Your task to perform on an android device: Show me productivity apps on the Play Store Image 0: 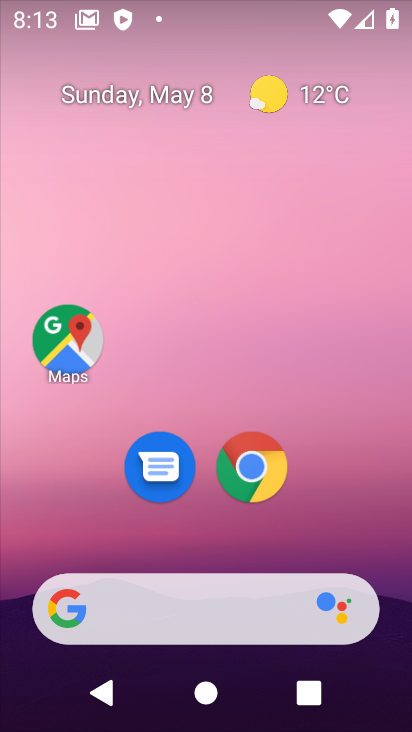
Step 0: drag from (220, 500) to (247, 60)
Your task to perform on an android device: Show me productivity apps on the Play Store Image 1: 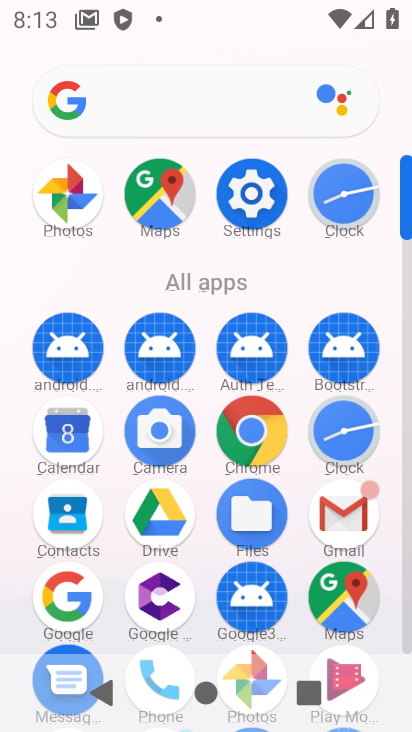
Step 1: drag from (189, 590) to (256, 179)
Your task to perform on an android device: Show me productivity apps on the Play Store Image 2: 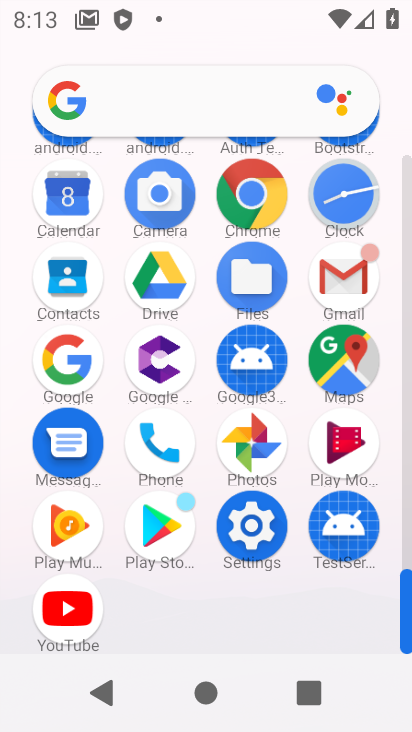
Step 2: click (156, 535)
Your task to perform on an android device: Show me productivity apps on the Play Store Image 3: 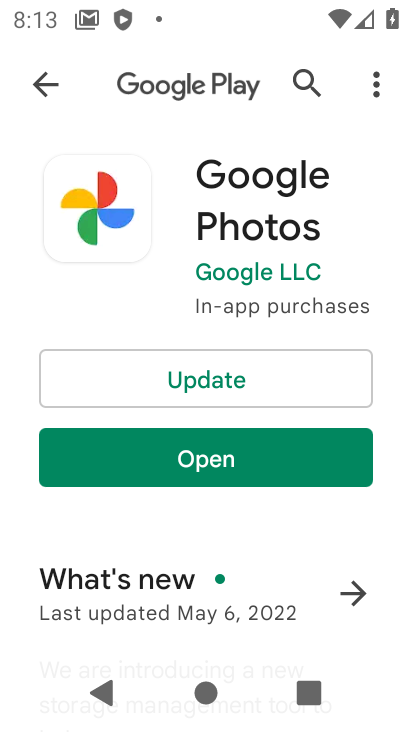
Step 3: click (33, 71)
Your task to perform on an android device: Show me productivity apps on the Play Store Image 4: 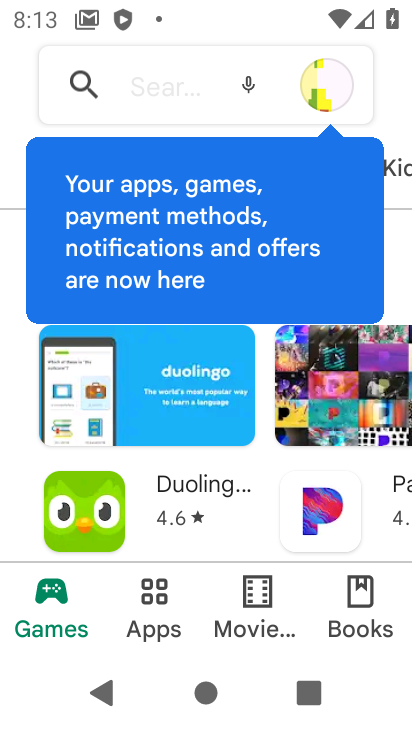
Step 4: click (158, 606)
Your task to perform on an android device: Show me productivity apps on the Play Store Image 5: 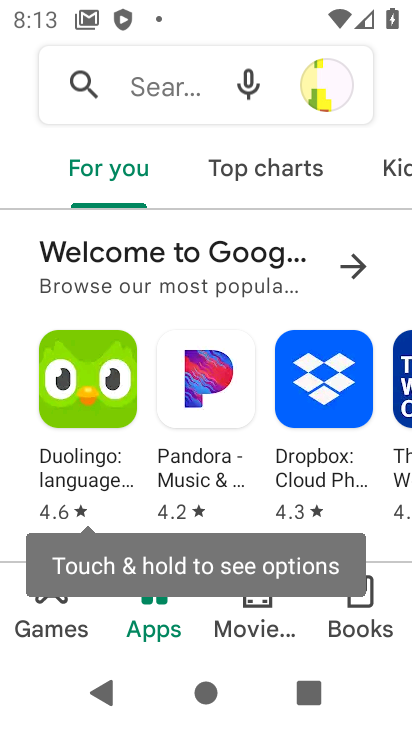
Step 5: drag from (203, 508) to (268, 186)
Your task to perform on an android device: Show me productivity apps on the Play Store Image 6: 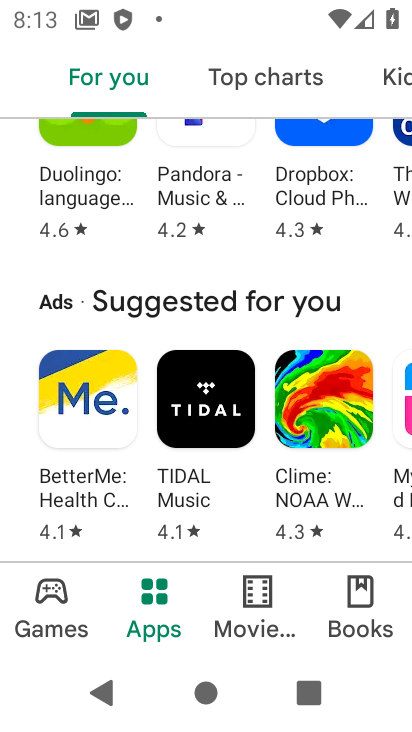
Step 6: drag from (189, 481) to (262, 229)
Your task to perform on an android device: Show me productivity apps on the Play Store Image 7: 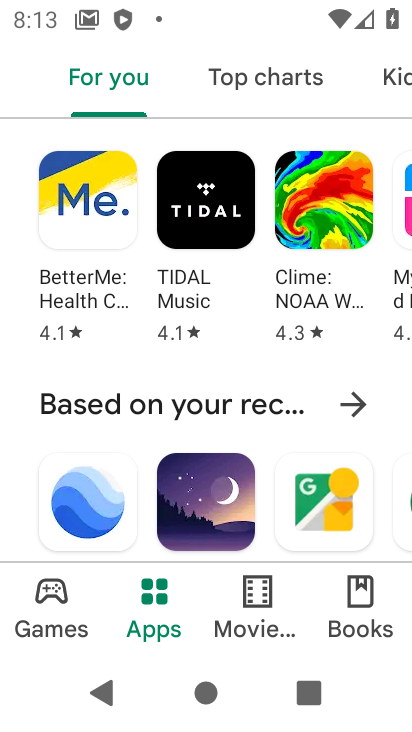
Step 7: drag from (227, 457) to (284, 202)
Your task to perform on an android device: Show me productivity apps on the Play Store Image 8: 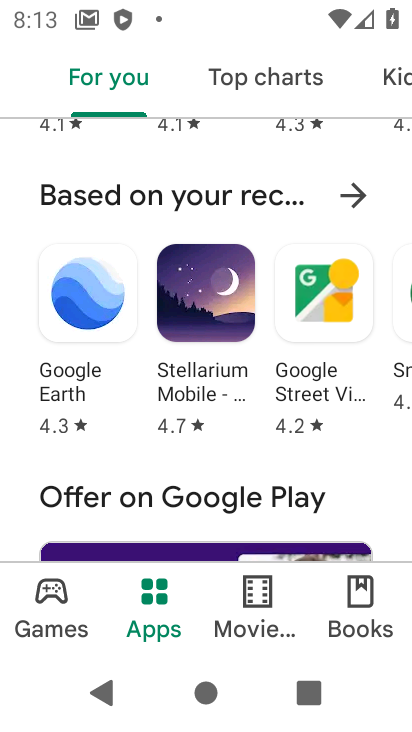
Step 8: drag from (191, 492) to (261, 173)
Your task to perform on an android device: Show me productivity apps on the Play Store Image 9: 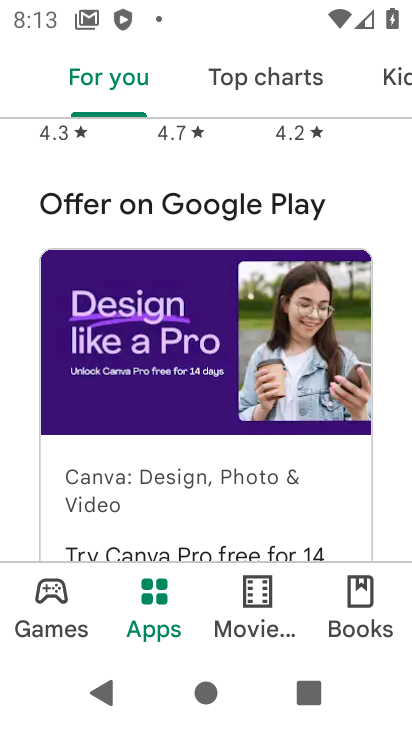
Step 9: drag from (116, 526) to (259, 146)
Your task to perform on an android device: Show me productivity apps on the Play Store Image 10: 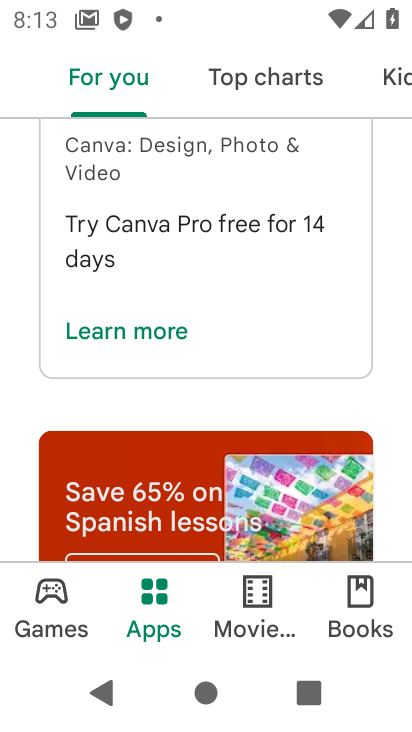
Step 10: drag from (185, 473) to (315, 75)
Your task to perform on an android device: Show me productivity apps on the Play Store Image 11: 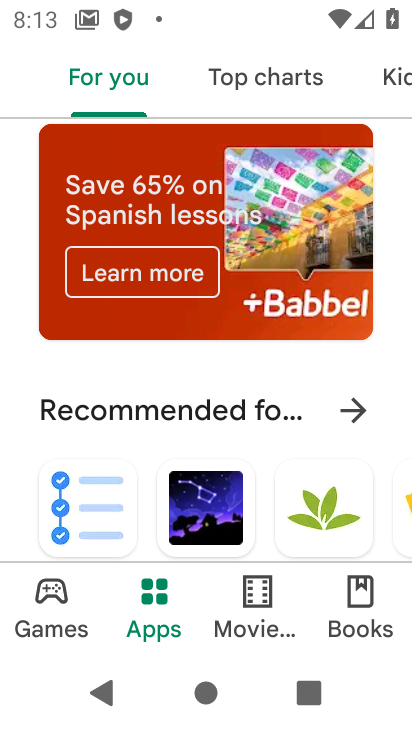
Step 11: drag from (164, 463) to (298, 86)
Your task to perform on an android device: Show me productivity apps on the Play Store Image 12: 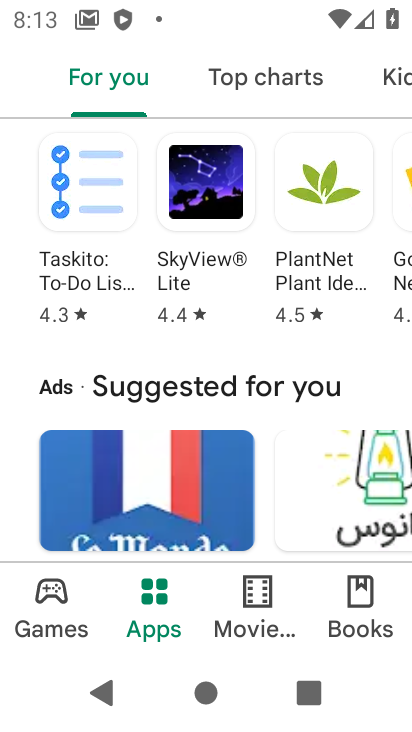
Step 12: drag from (204, 459) to (330, 85)
Your task to perform on an android device: Show me productivity apps on the Play Store Image 13: 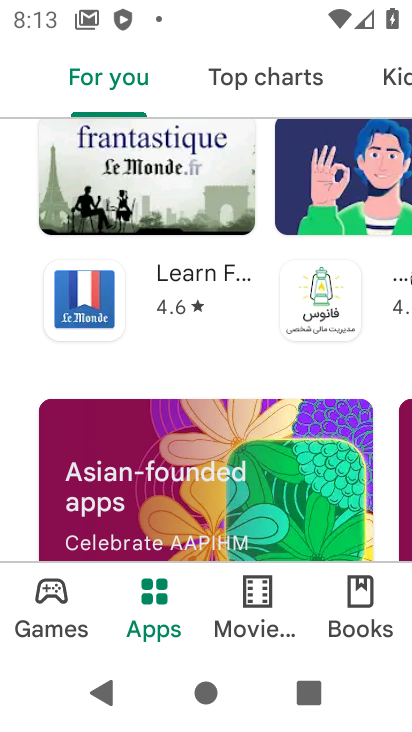
Step 13: drag from (193, 513) to (301, 154)
Your task to perform on an android device: Show me productivity apps on the Play Store Image 14: 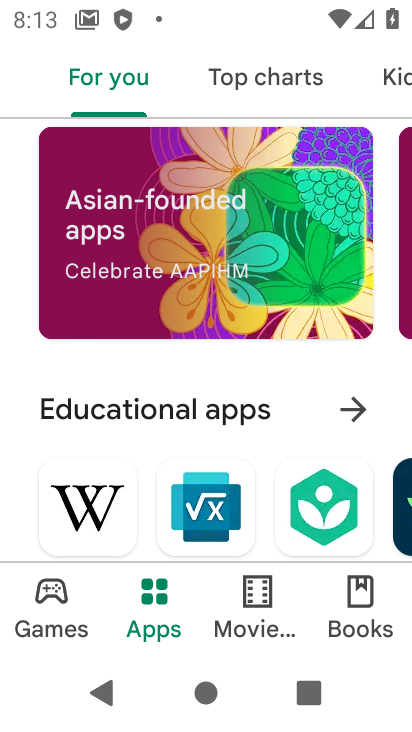
Step 14: drag from (196, 481) to (304, 123)
Your task to perform on an android device: Show me productivity apps on the Play Store Image 15: 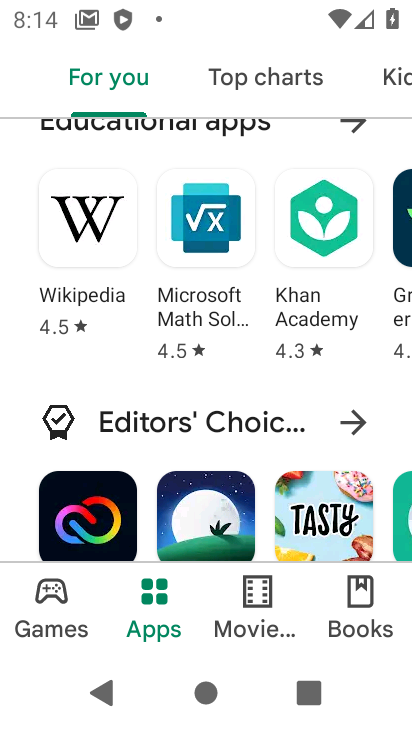
Step 15: drag from (175, 520) to (303, 111)
Your task to perform on an android device: Show me productivity apps on the Play Store Image 16: 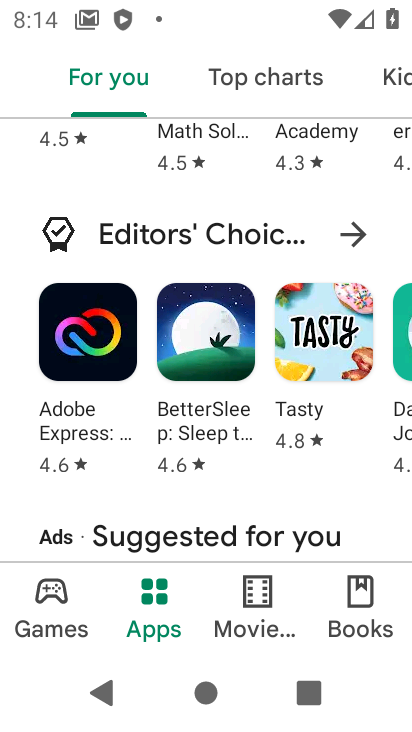
Step 16: drag from (185, 528) to (321, 86)
Your task to perform on an android device: Show me productivity apps on the Play Store Image 17: 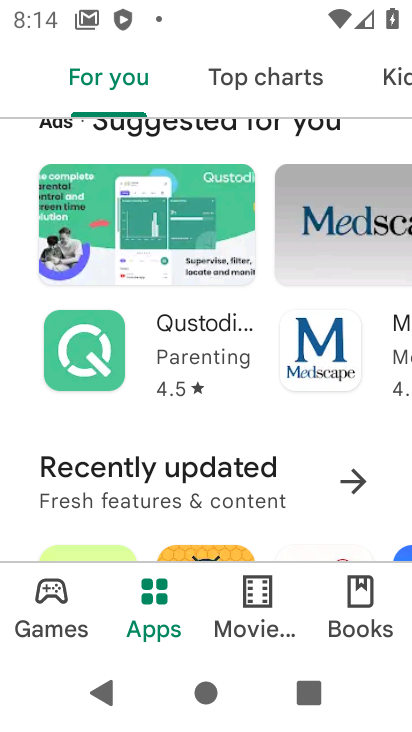
Step 17: drag from (196, 452) to (316, 55)
Your task to perform on an android device: Show me productivity apps on the Play Store Image 18: 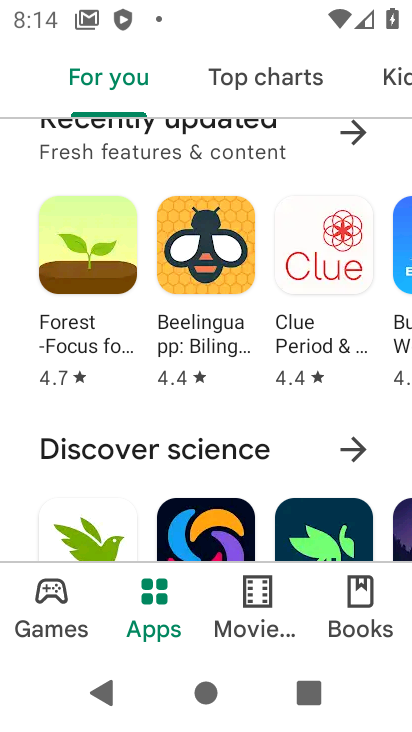
Step 18: drag from (178, 485) to (270, 152)
Your task to perform on an android device: Show me productivity apps on the Play Store Image 19: 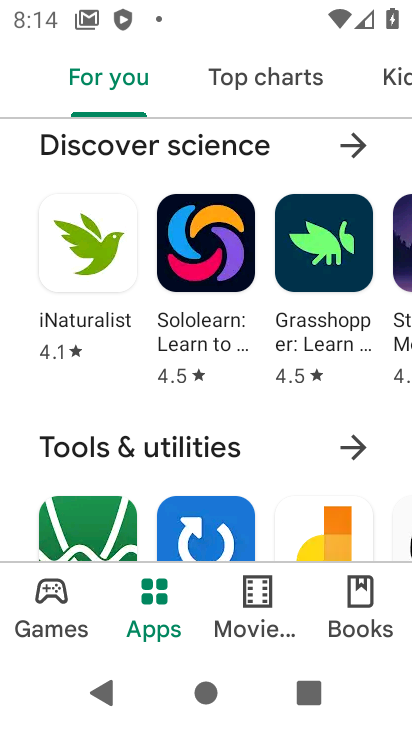
Step 19: drag from (170, 490) to (298, 87)
Your task to perform on an android device: Show me productivity apps on the Play Store Image 20: 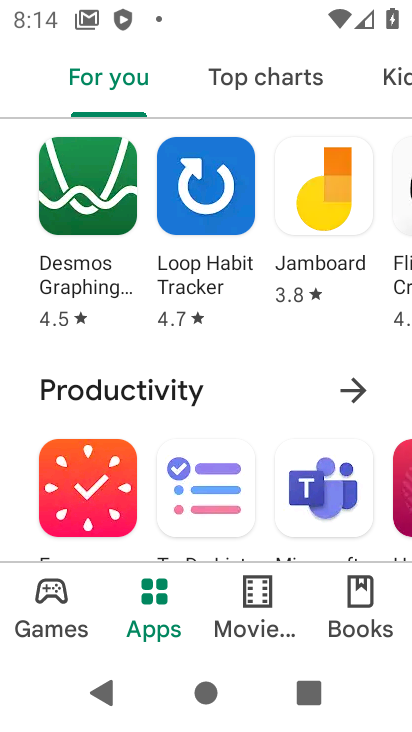
Step 20: click (353, 389)
Your task to perform on an android device: Show me productivity apps on the Play Store Image 21: 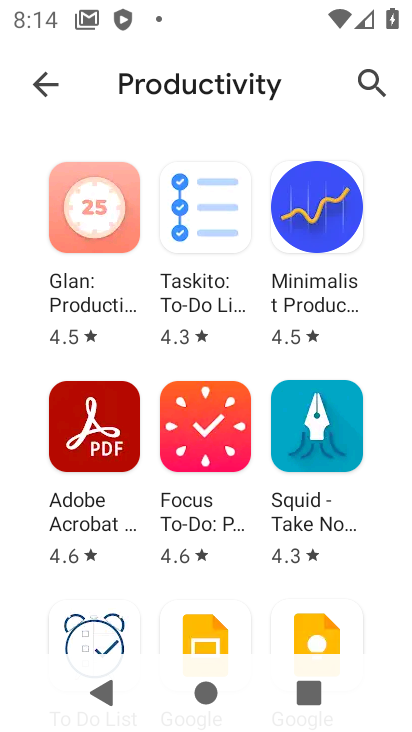
Step 21: task complete